Your task to perform on an android device: Is it going to rain tomorrow? Image 0: 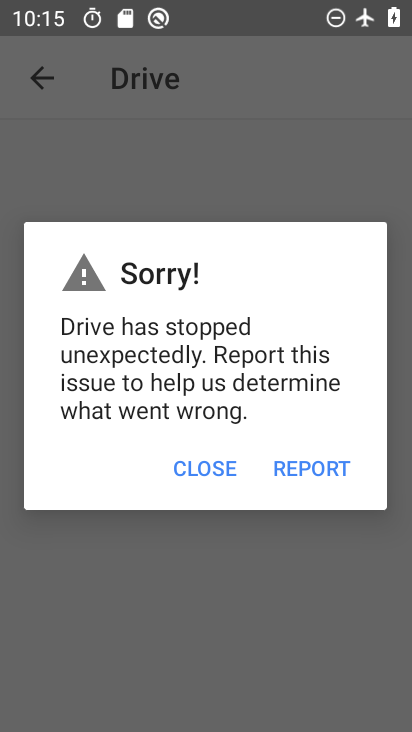
Step 0: press home button
Your task to perform on an android device: Is it going to rain tomorrow? Image 1: 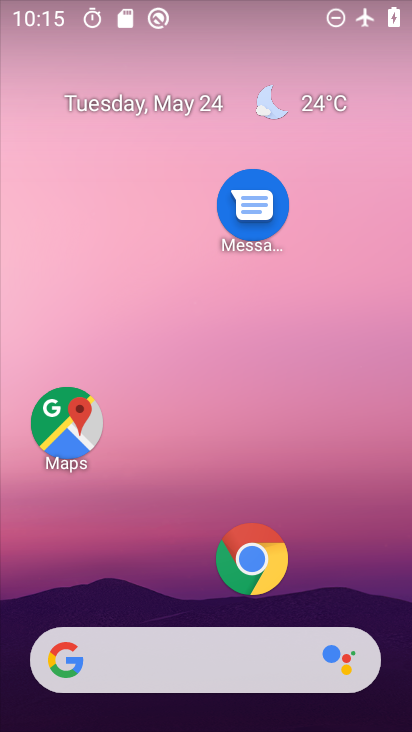
Step 1: drag from (199, 593) to (195, 211)
Your task to perform on an android device: Is it going to rain tomorrow? Image 2: 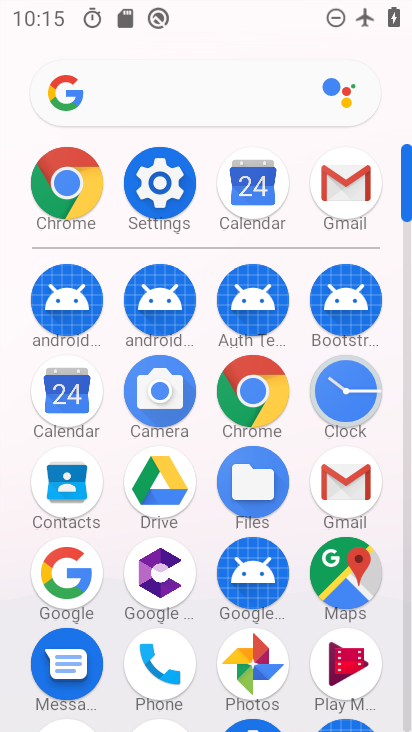
Step 2: click (73, 577)
Your task to perform on an android device: Is it going to rain tomorrow? Image 3: 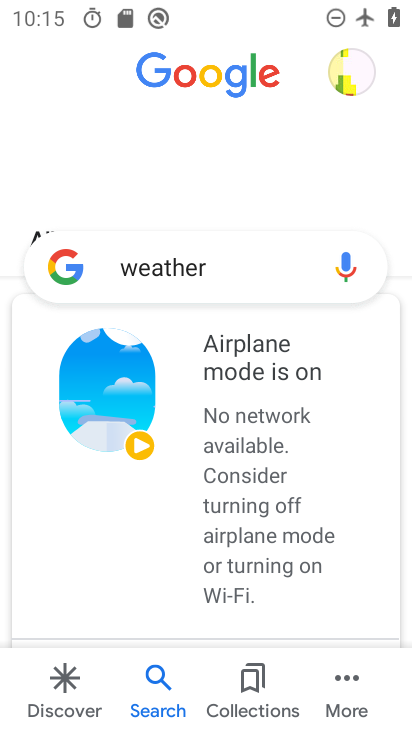
Step 3: click (236, 254)
Your task to perform on an android device: Is it going to rain tomorrow? Image 4: 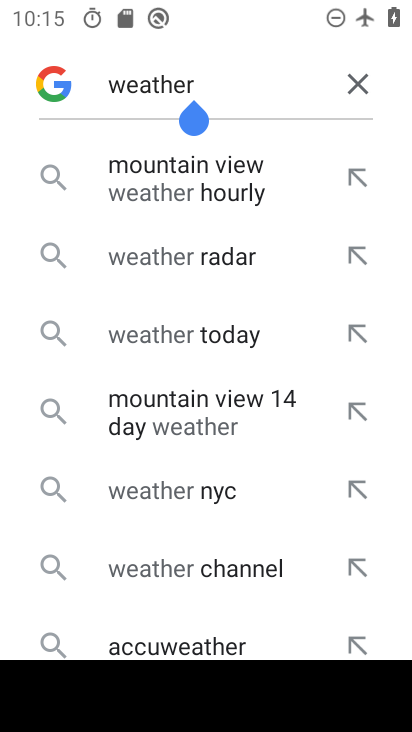
Step 4: click (356, 78)
Your task to perform on an android device: Is it going to rain tomorrow? Image 5: 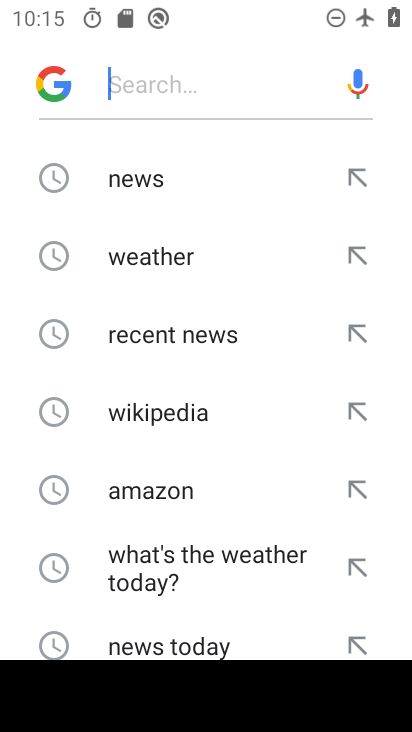
Step 5: click (138, 263)
Your task to perform on an android device: Is it going to rain tomorrow? Image 6: 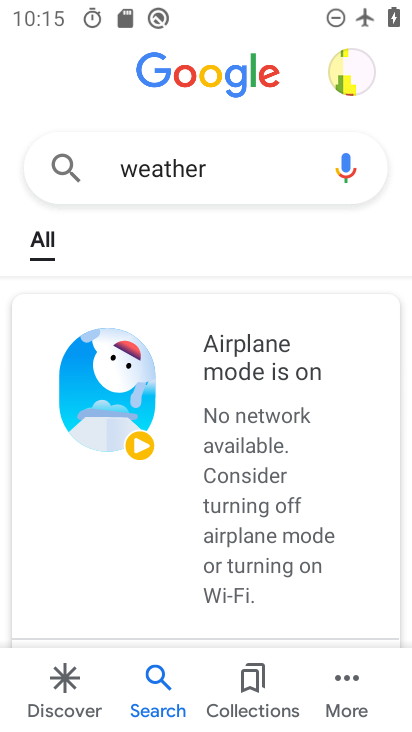
Step 6: task complete